Your task to perform on an android device: Open Yahoo.com Image 0: 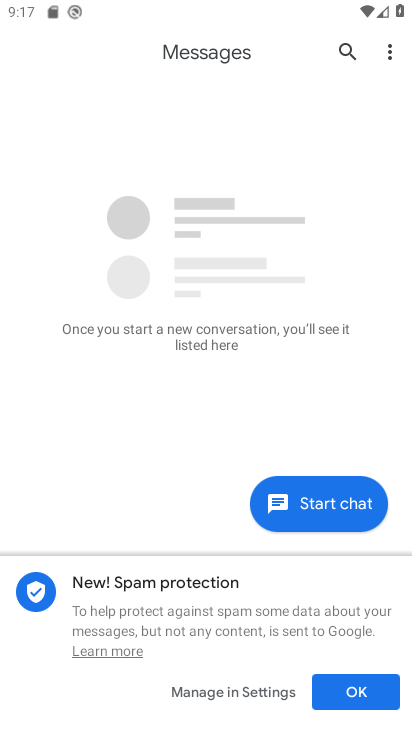
Step 0: press home button
Your task to perform on an android device: Open Yahoo.com Image 1: 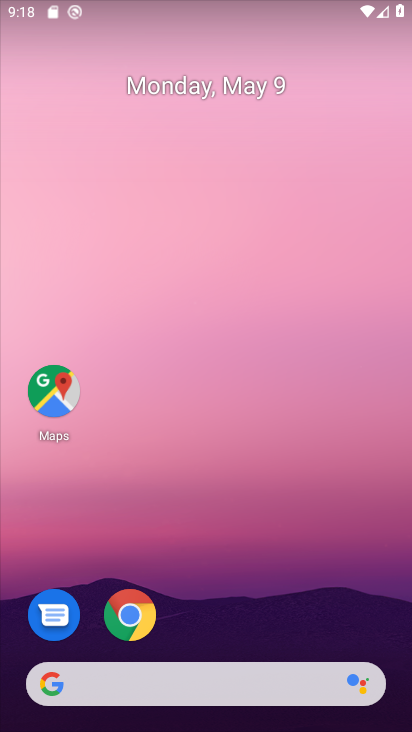
Step 1: drag from (295, 710) to (330, 221)
Your task to perform on an android device: Open Yahoo.com Image 2: 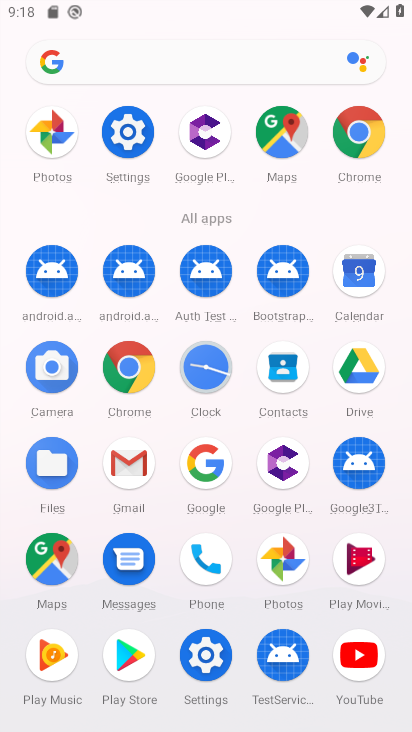
Step 2: click (373, 155)
Your task to perform on an android device: Open Yahoo.com Image 3: 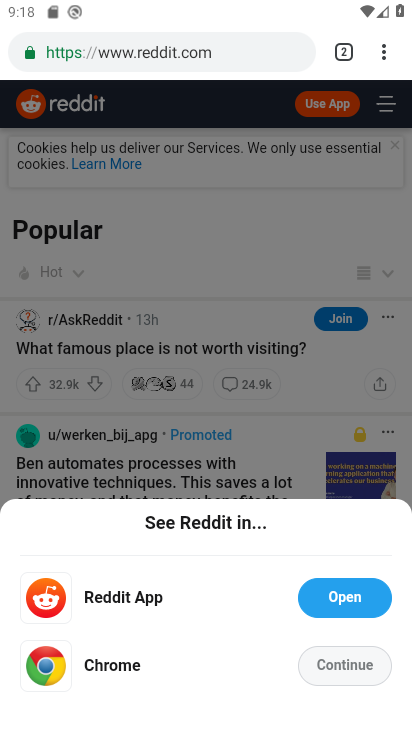
Step 3: click (167, 59)
Your task to perform on an android device: Open Yahoo.com Image 4: 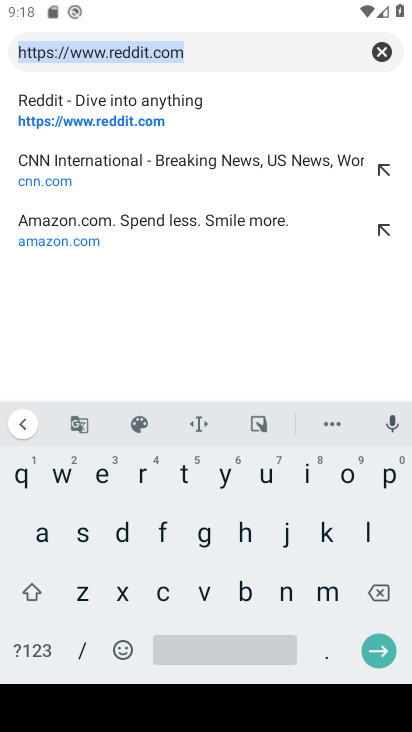
Step 4: click (374, 50)
Your task to perform on an android device: Open Yahoo.com Image 5: 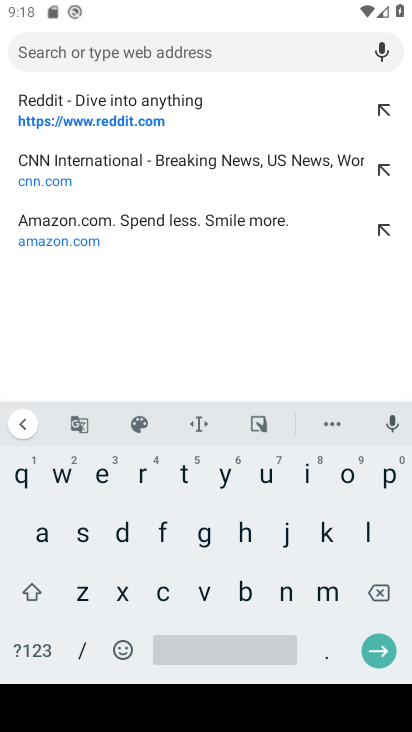
Step 5: click (223, 471)
Your task to perform on an android device: Open Yahoo.com Image 6: 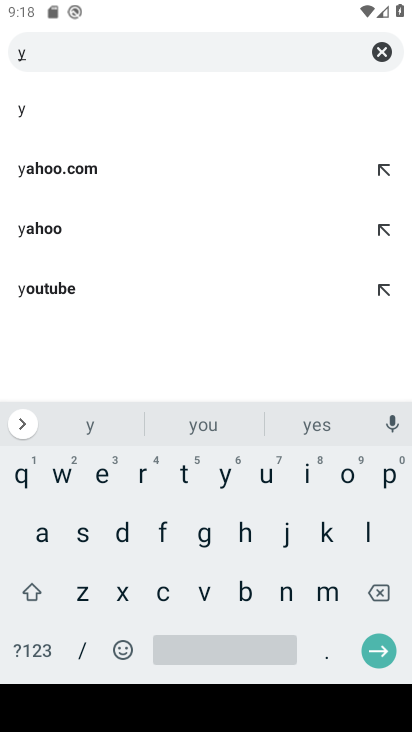
Step 6: click (105, 168)
Your task to perform on an android device: Open Yahoo.com Image 7: 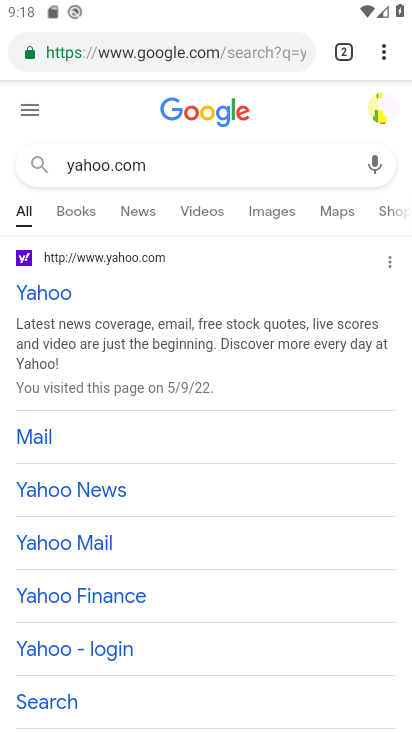
Step 7: click (52, 291)
Your task to perform on an android device: Open Yahoo.com Image 8: 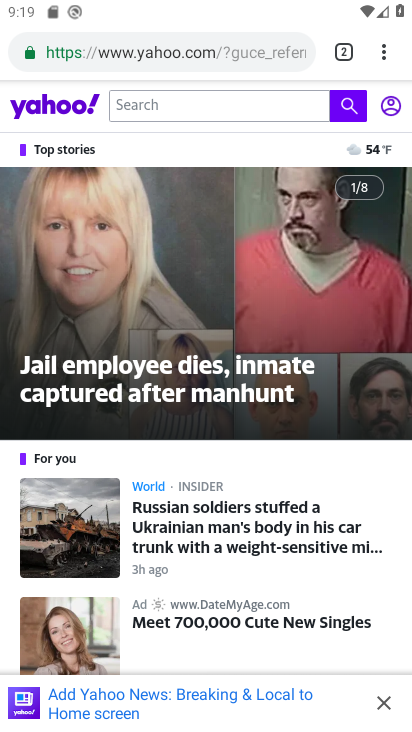
Step 8: task complete